Your task to perform on an android device: Open network settings Image 0: 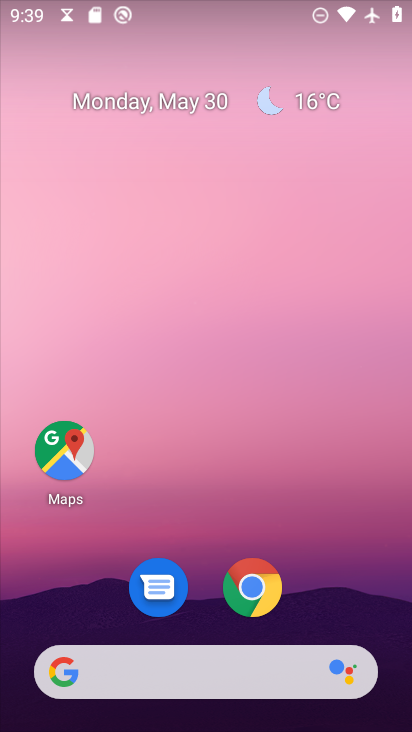
Step 0: drag from (146, 673) to (251, 245)
Your task to perform on an android device: Open network settings Image 1: 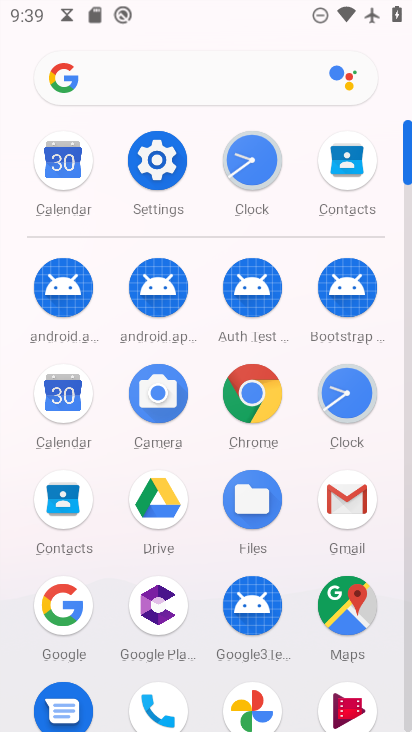
Step 1: click (152, 167)
Your task to perform on an android device: Open network settings Image 2: 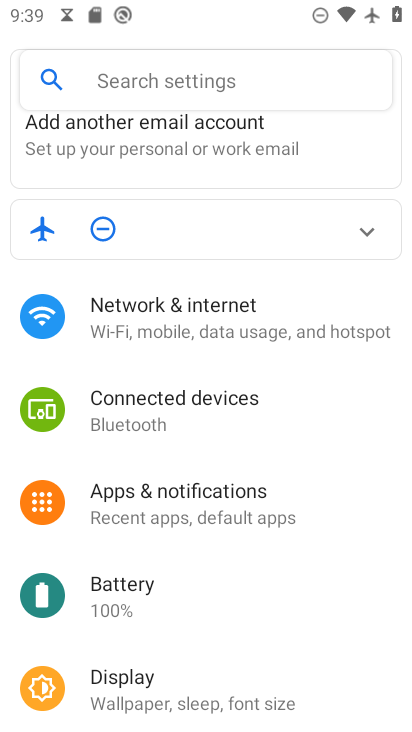
Step 2: click (204, 302)
Your task to perform on an android device: Open network settings Image 3: 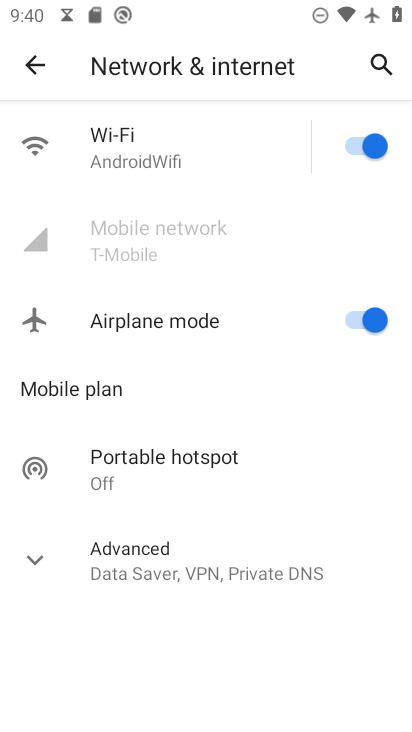
Step 3: task complete